Your task to perform on an android device: toggle priority inbox in the gmail app Image 0: 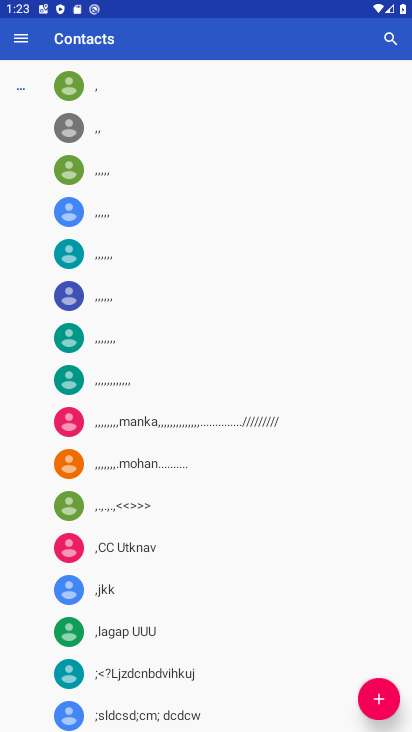
Step 0: press back button
Your task to perform on an android device: toggle priority inbox in the gmail app Image 1: 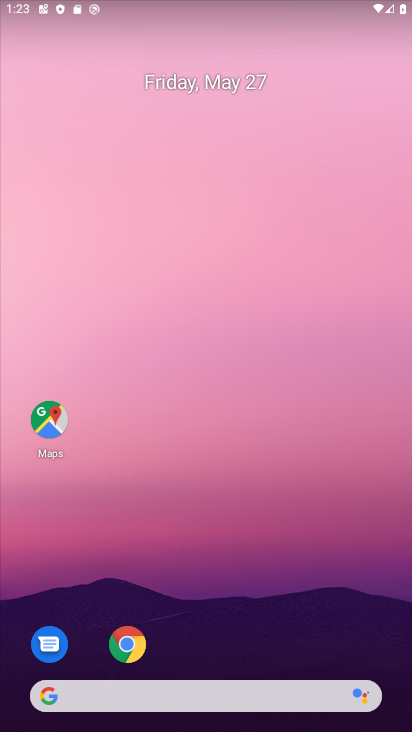
Step 1: drag from (235, 569) to (162, 37)
Your task to perform on an android device: toggle priority inbox in the gmail app Image 2: 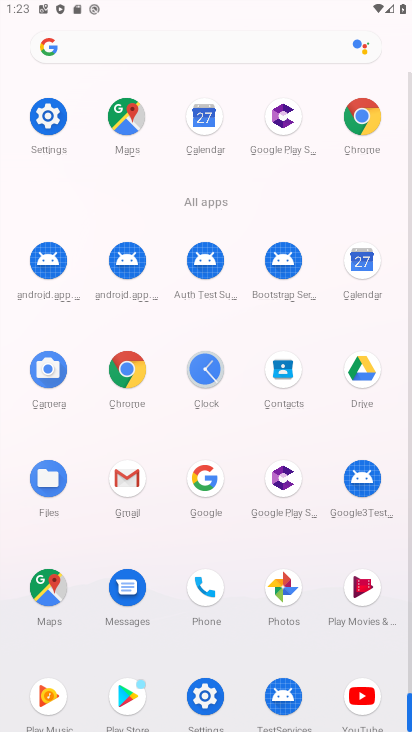
Step 2: drag from (15, 543) to (19, 215)
Your task to perform on an android device: toggle priority inbox in the gmail app Image 3: 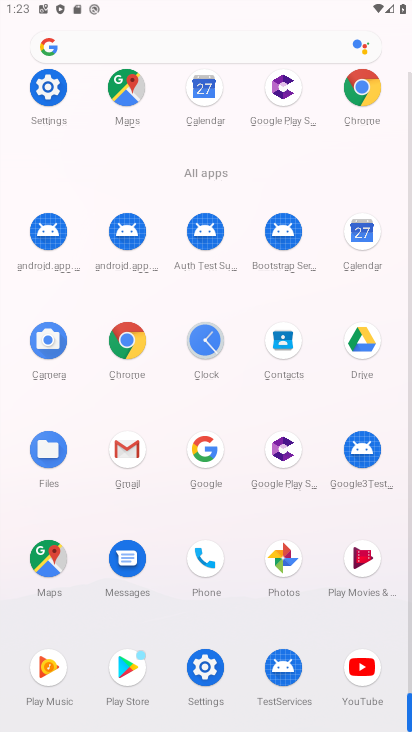
Step 3: click (128, 447)
Your task to perform on an android device: toggle priority inbox in the gmail app Image 4: 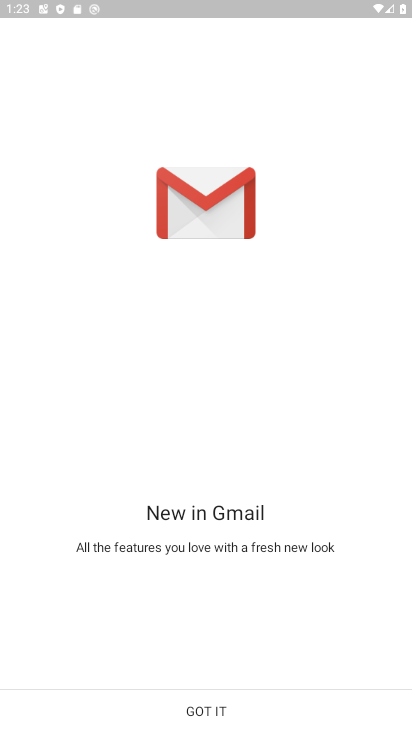
Step 4: click (228, 712)
Your task to perform on an android device: toggle priority inbox in the gmail app Image 5: 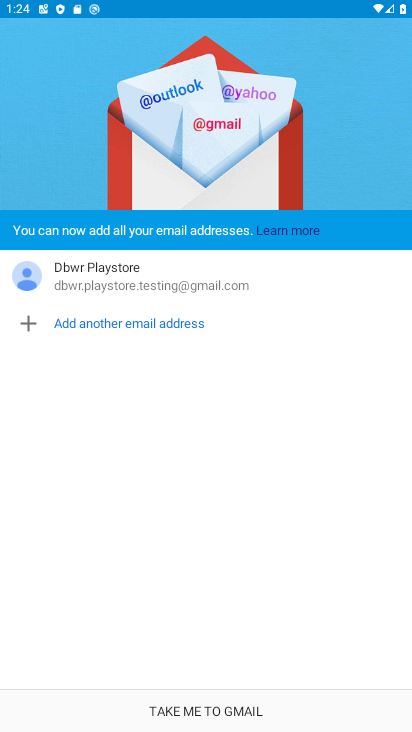
Step 5: click (228, 705)
Your task to perform on an android device: toggle priority inbox in the gmail app Image 6: 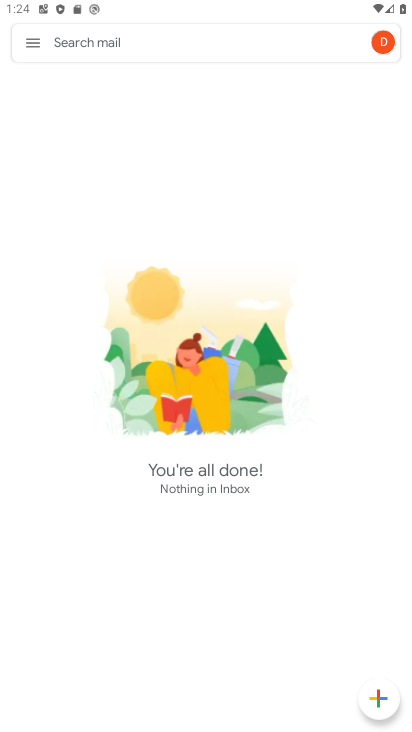
Step 6: click (29, 45)
Your task to perform on an android device: toggle priority inbox in the gmail app Image 7: 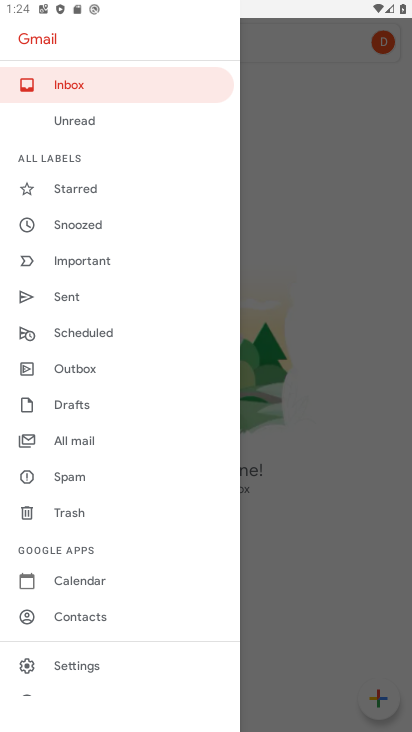
Step 7: click (86, 667)
Your task to perform on an android device: toggle priority inbox in the gmail app Image 8: 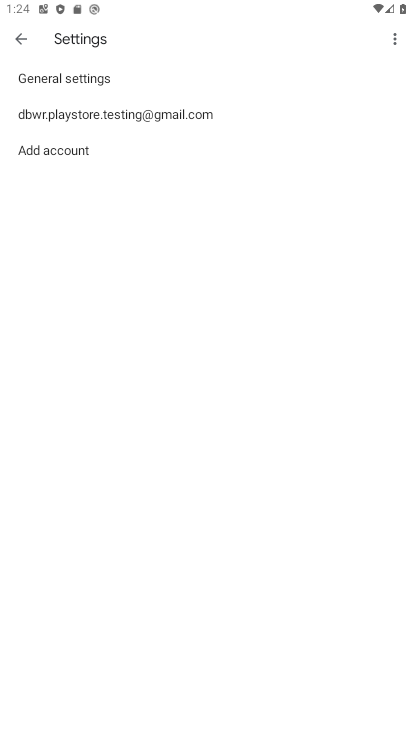
Step 8: click (120, 116)
Your task to perform on an android device: toggle priority inbox in the gmail app Image 9: 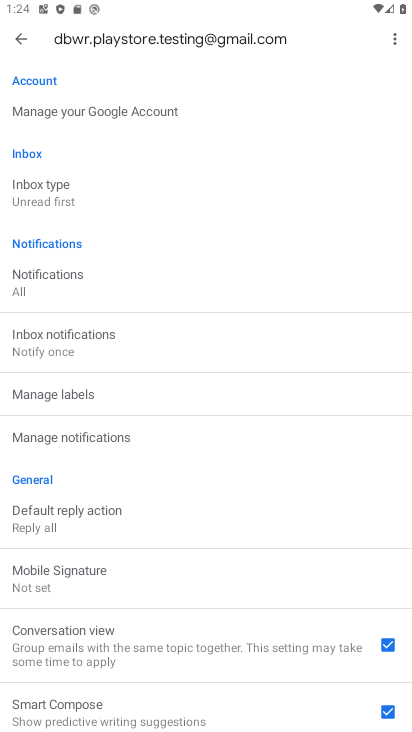
Step 9: click (72, 194)
Your task to perform on an android device: toggle priority inbox in the gmail app Image 10: 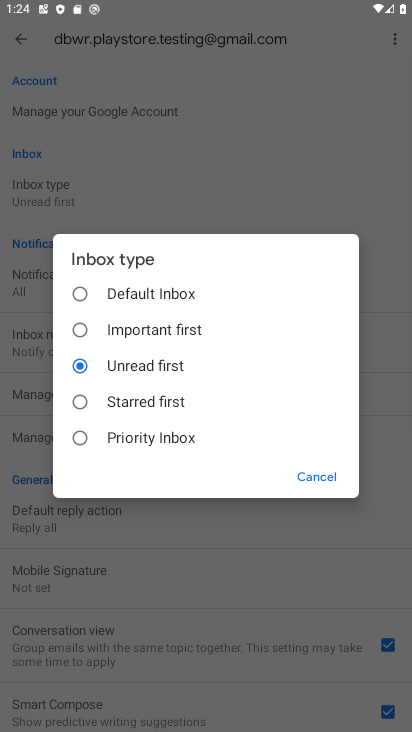
Step 10: click (112, 437)
Your task to perform on an android device: toggle priority inbox in the gmail app Image 11: 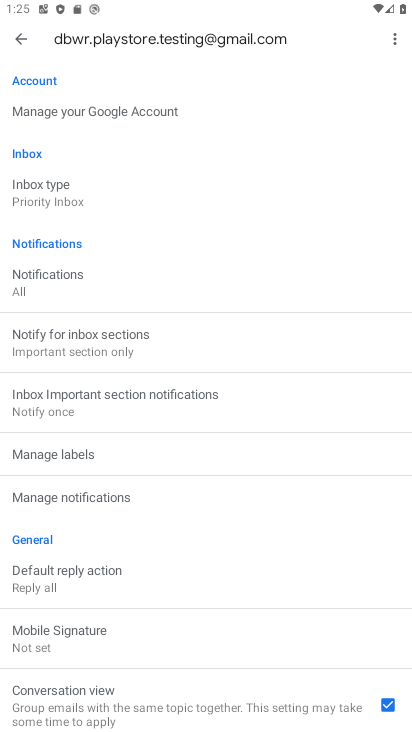
Step 11: task complete